Your task to perform on an android device: turn on priority inbox in the gmail app Image 0: 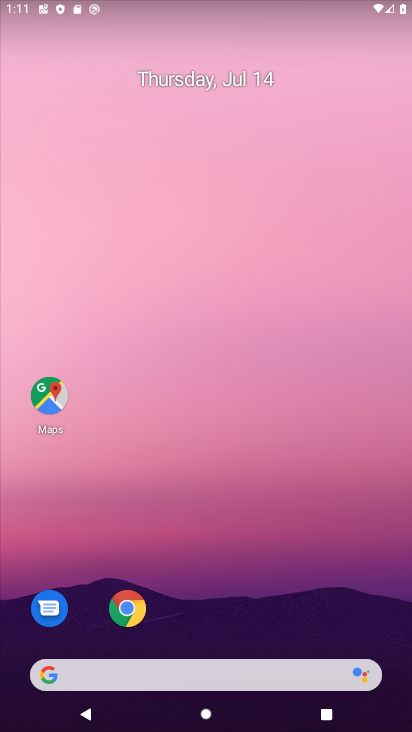
Step 0: drag from (389, 633) to (334, 143)
Your task to perform on an android device: turn on priority inbox in the gmail app Image 1: 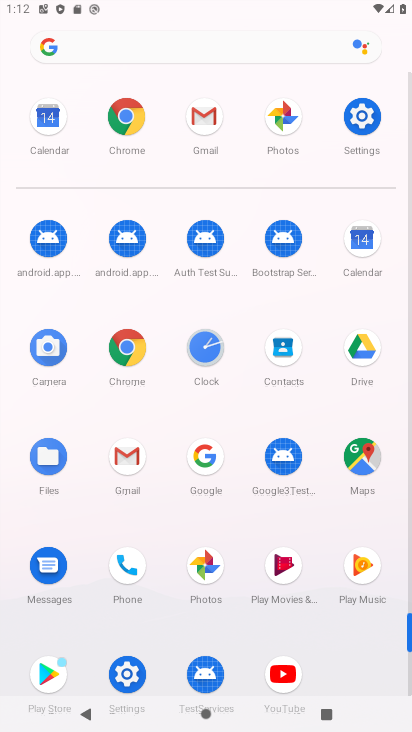
Step 1: click (126, 455)
Your task to perform on an android device: turn on priority inbox in the gmail app Image 2: 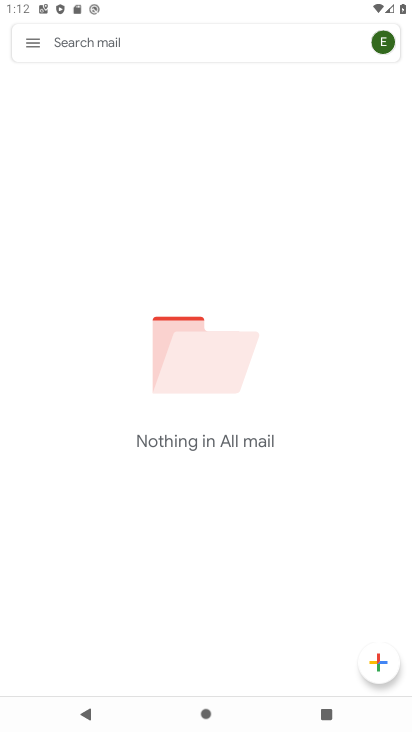
Step 2: click (25, 40)
Your task to perform on an android device: turn on priority inbox in the gmail app Image 3: 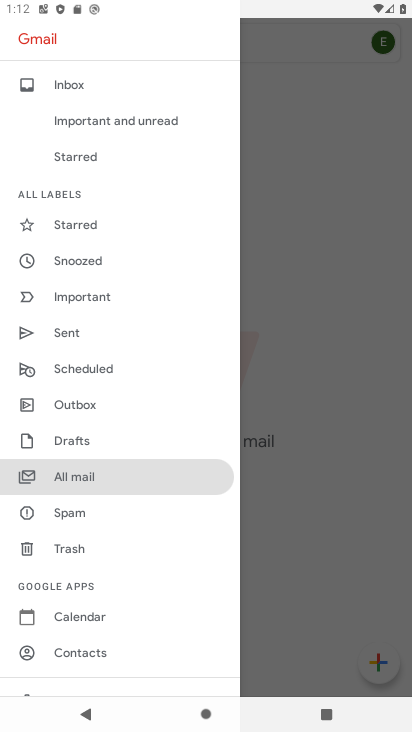
Step 3: drag from (139, 649) to (156, 309)
Your task to perform on an android device: turn on priority inbox in the gmail app Image 4: 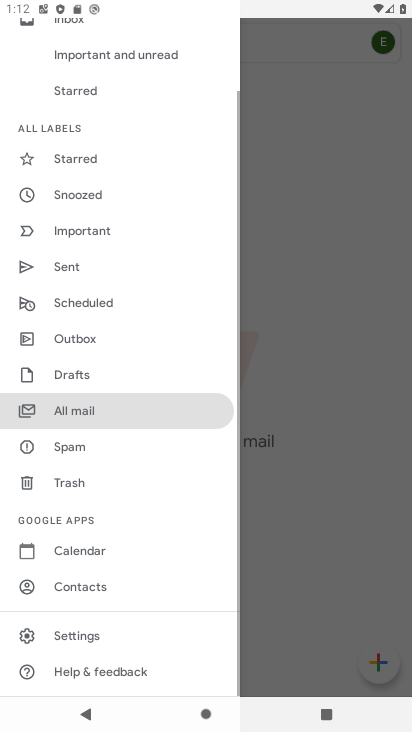
Step 4: click (69, 634)
Your task to perform on an android device: turn on priority inbox in the gmail app Image 5: 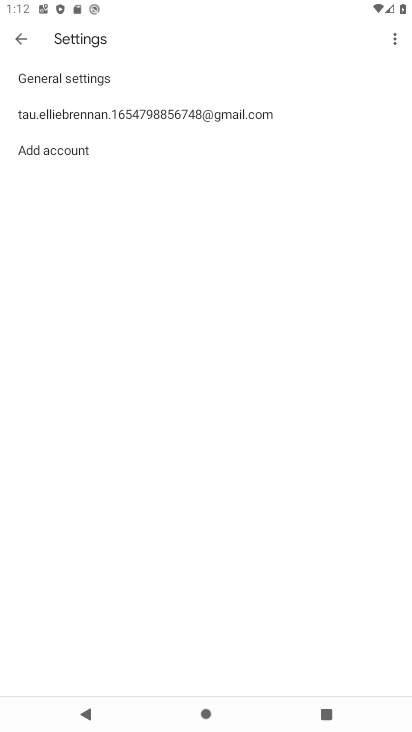
Step 5: click (116, 106)
Your task to perform on an android device: turn on priority inbox in the gmail app Image 6: 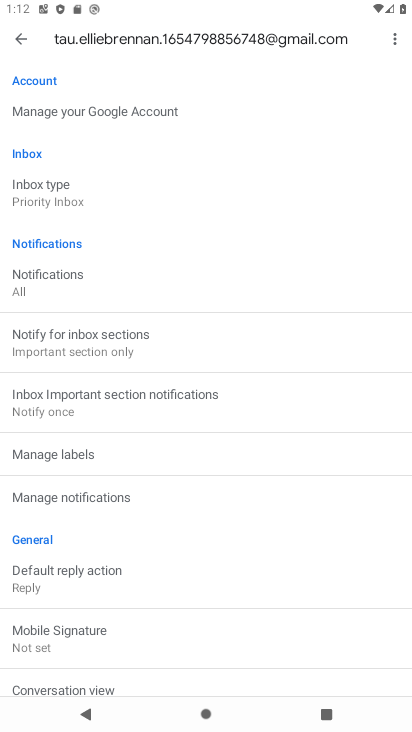
Step 6: click (37, 192)
Your task to perform on an android device: turn on priority inbox in the gmail app Image 7: 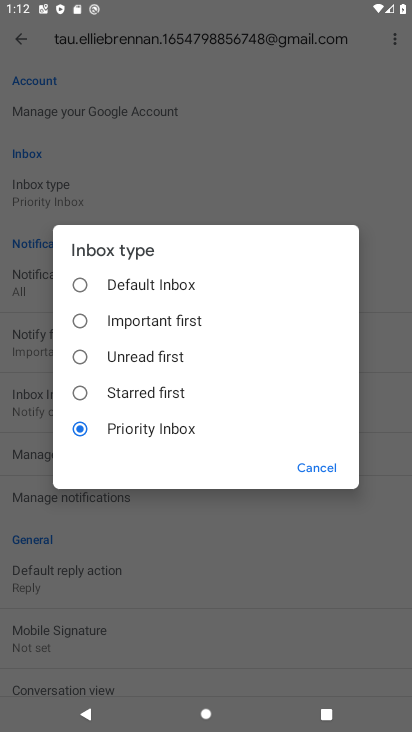
Step 7: task complete